Your task to perform on an android device: snooze an email in the gmail app Image 0: 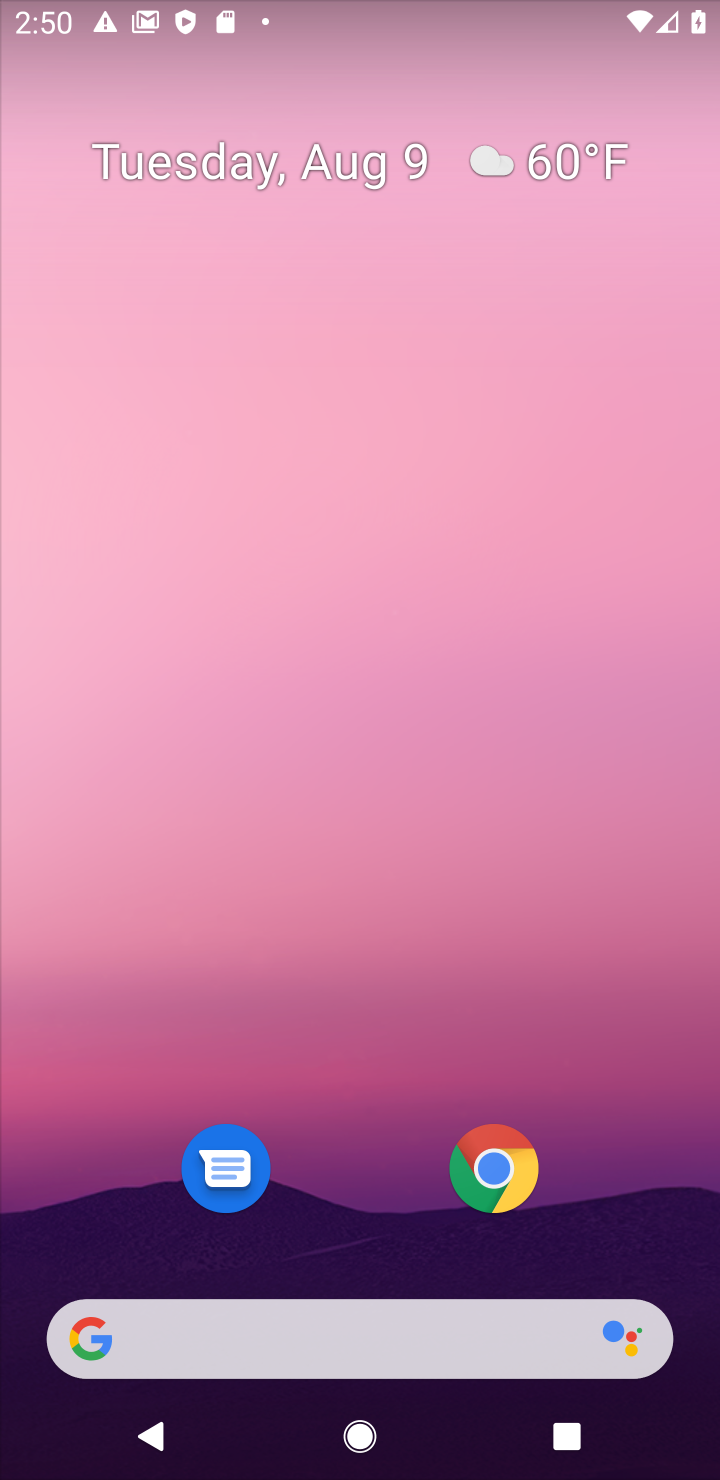
Step 0: drag from (355, 853) to (339, 273)
Your task to perform on an android device: snooze an email in the gmail app Image 1: 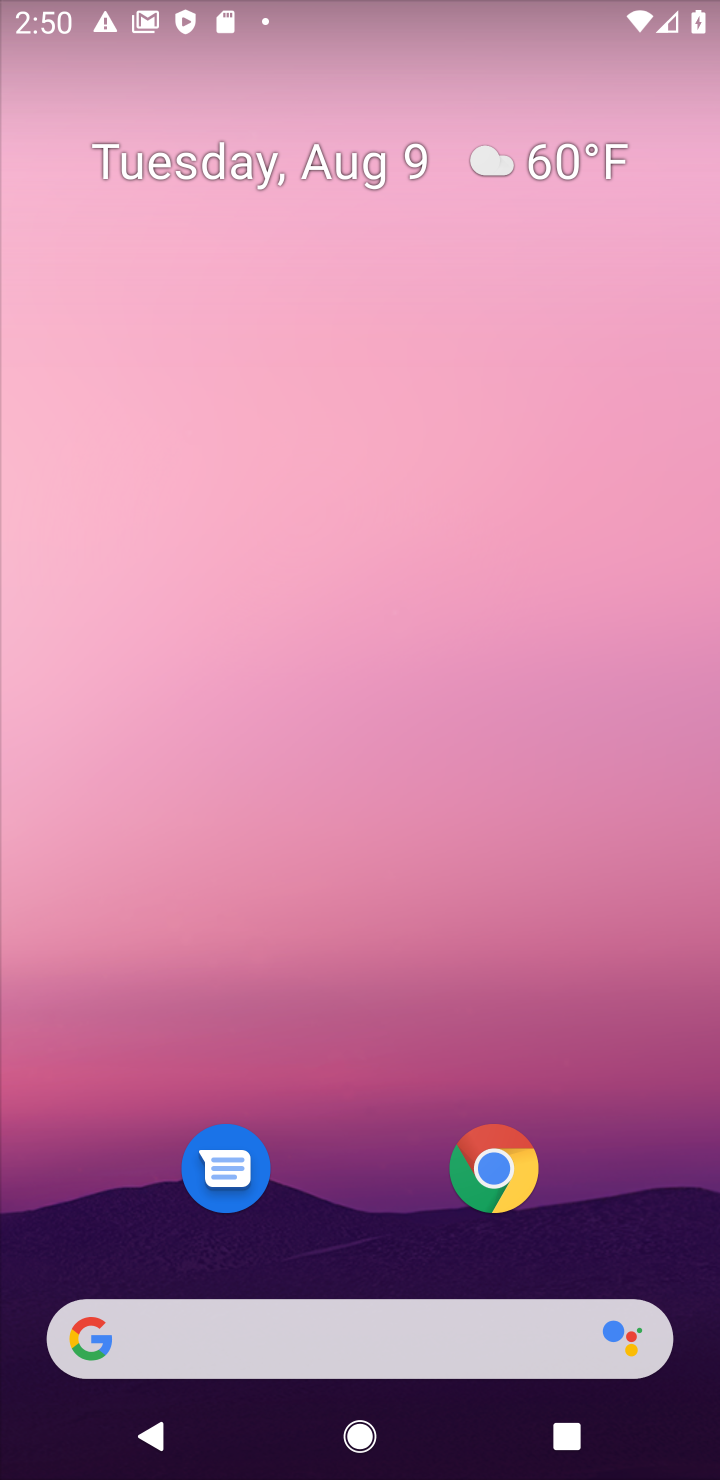
Step 1: drag from (343, 1152) to (272, 19)
Your task to perform on an android device: snooze an email in the gmail app Image 2: 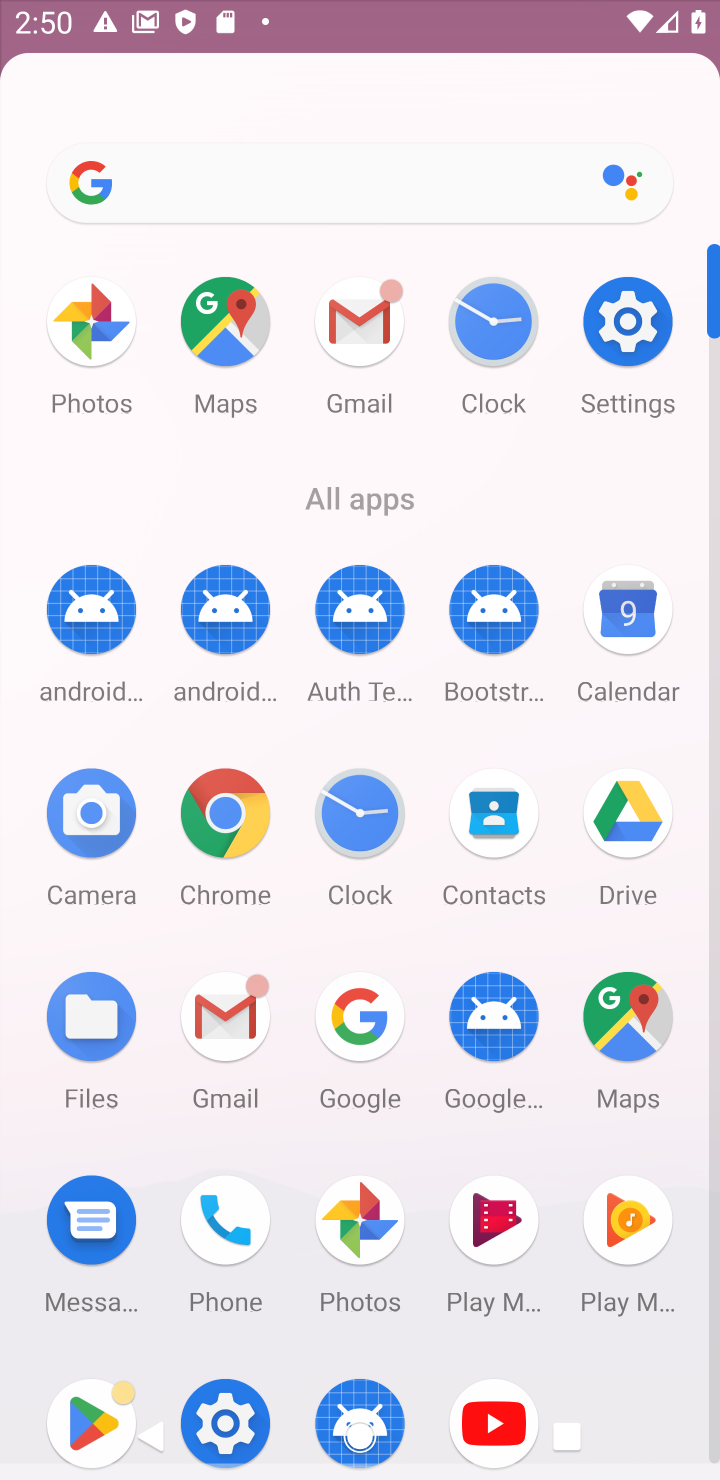
Step 2: click (369, 327)
Your task to perform on an android device: snooze an email in the gmail app Image 3: 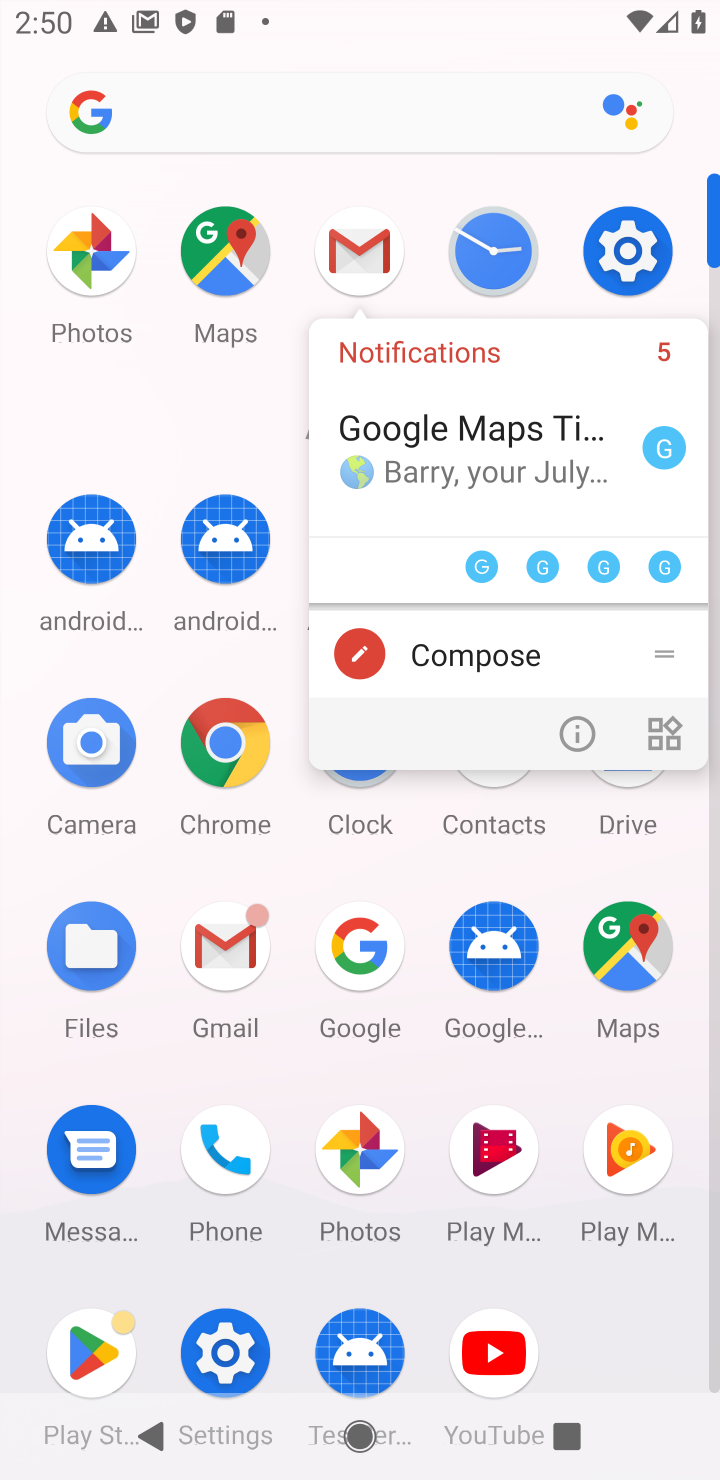
Step 3: click (369, 271)
Your task to perform on an android device: snooze an email in the gmail app Image 4: 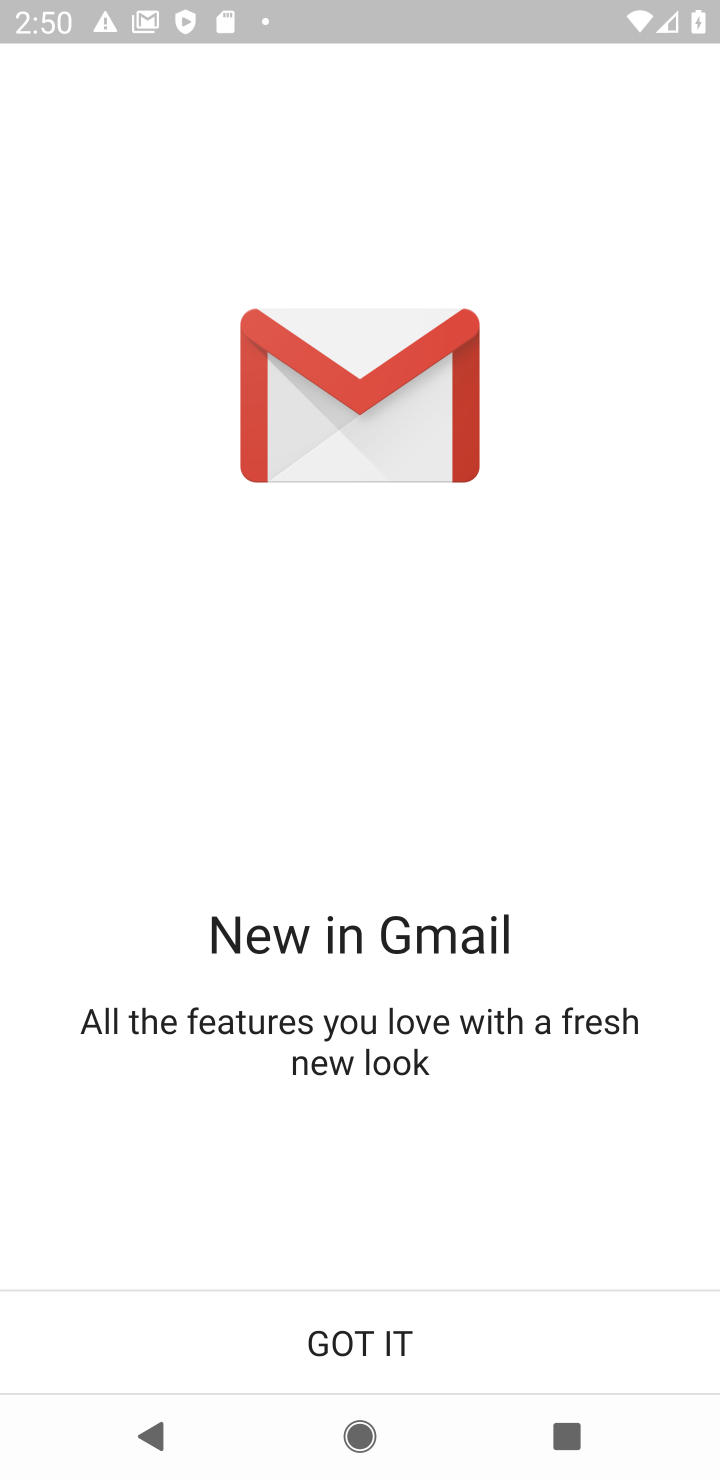
Step 4: click (295, 1323)
Your task to perform on an android device: snooze an email in the gmail app Image 5: 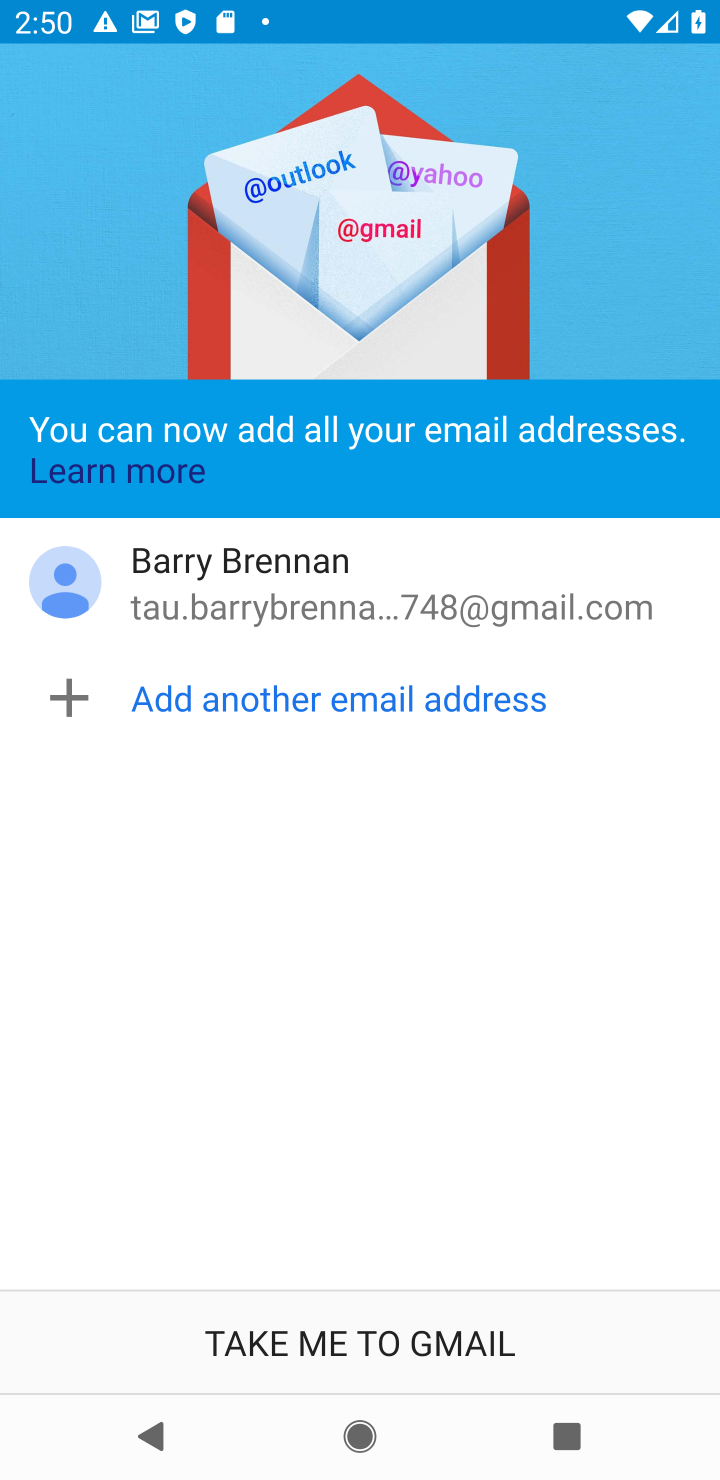
Step 5: click (402, 1330)
Your task to perform on an android device: snooze an email in the gmail app Image 6: 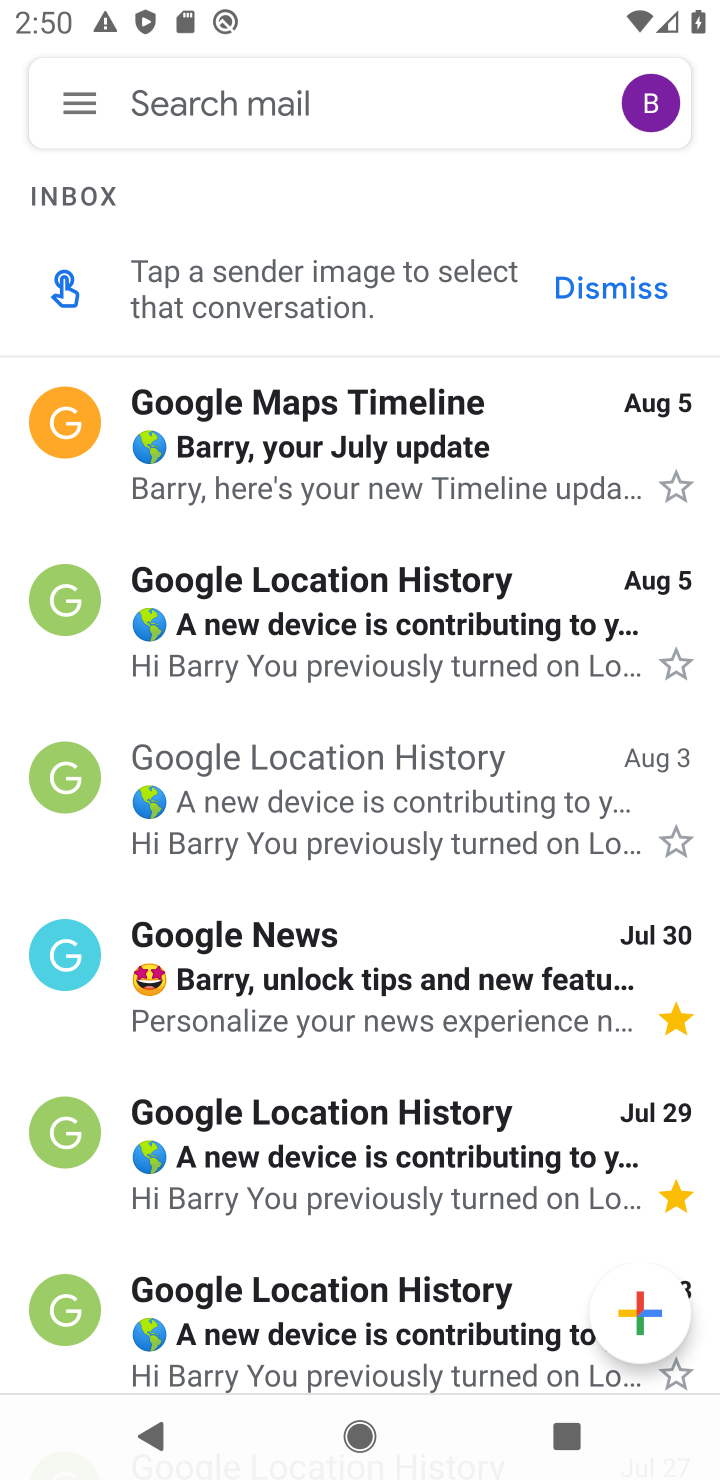
Step 6: drag from (321, 449) to (282, 348)
Your task to perform on an android device: snooze an email in the gmail app Image 7: 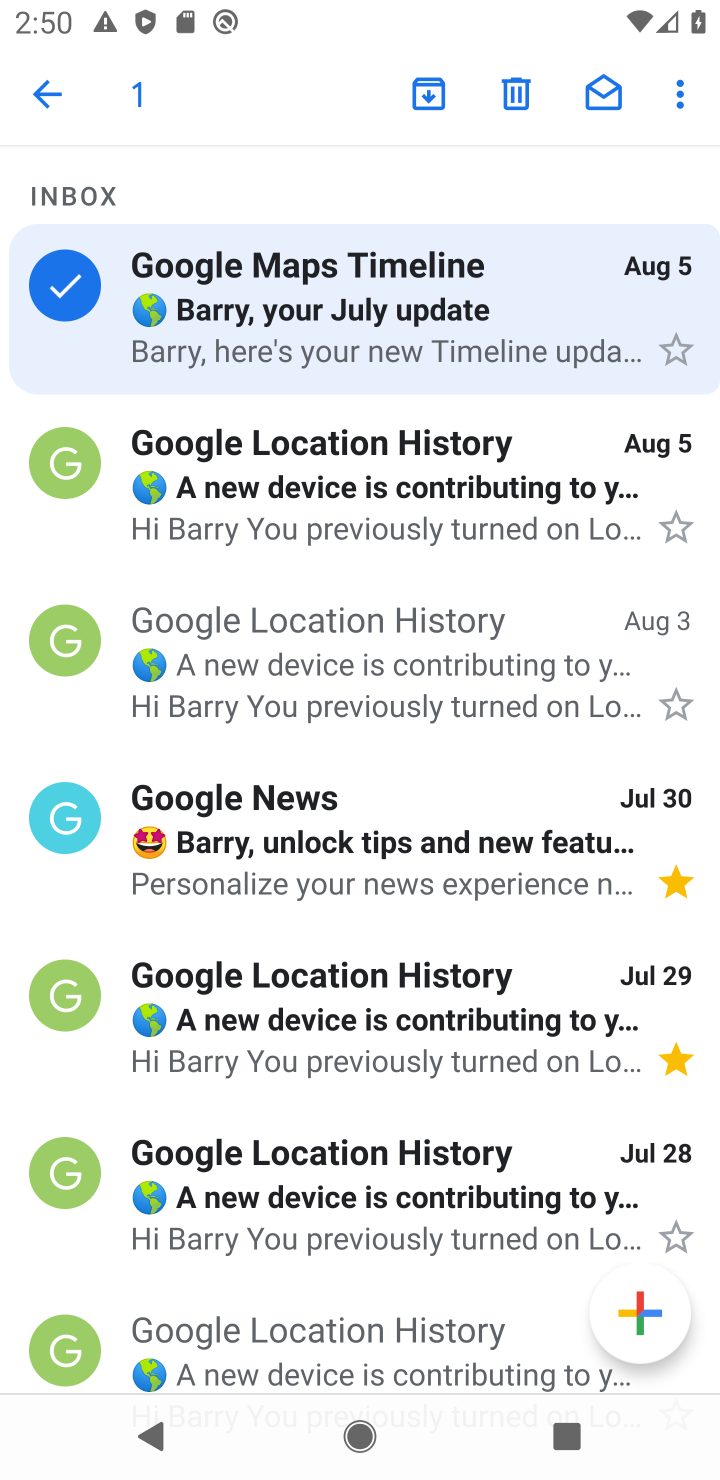
Step 7: click (664, 80)
Your task to perform on an android device: snooze an email in the gmail app Image 8: 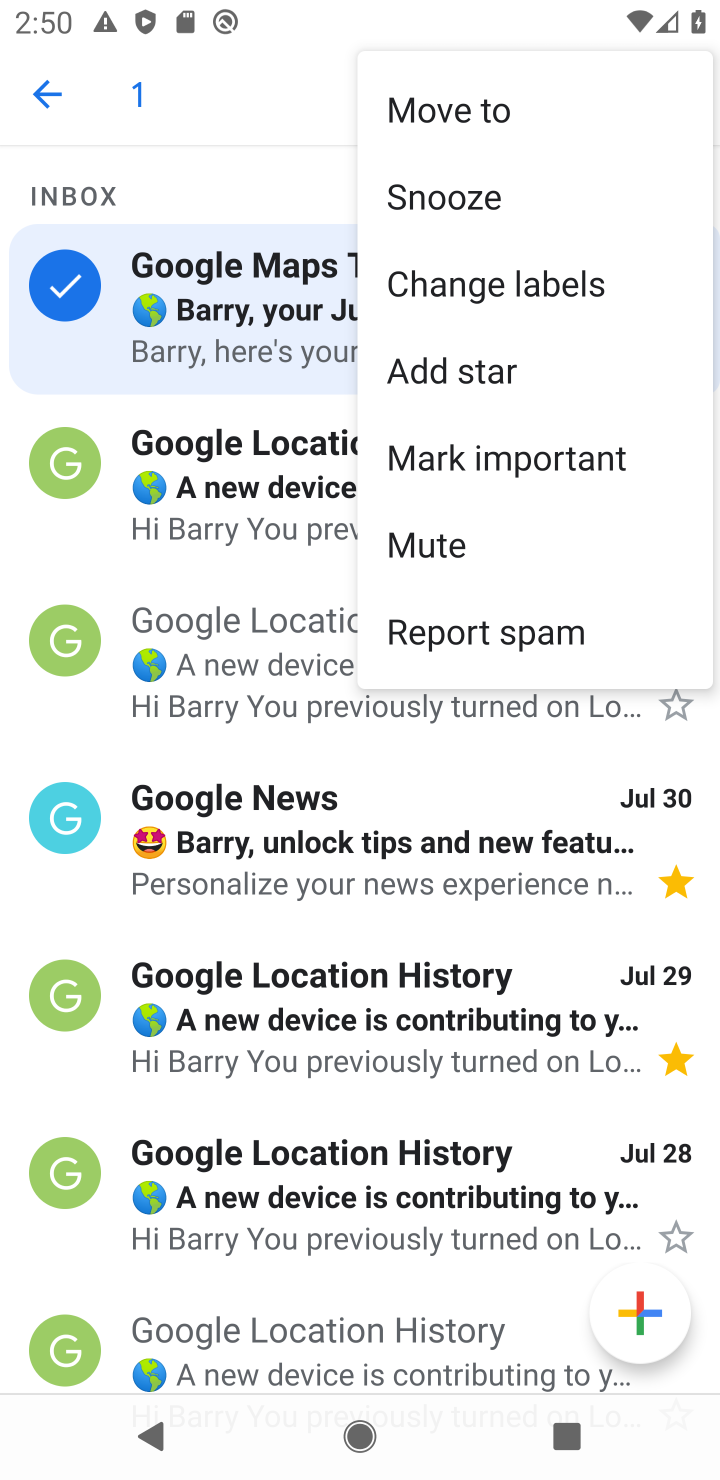
Step 8: click (475, 191)
Your task to perform on an android device: snooze an email in the gmail app Image 9: 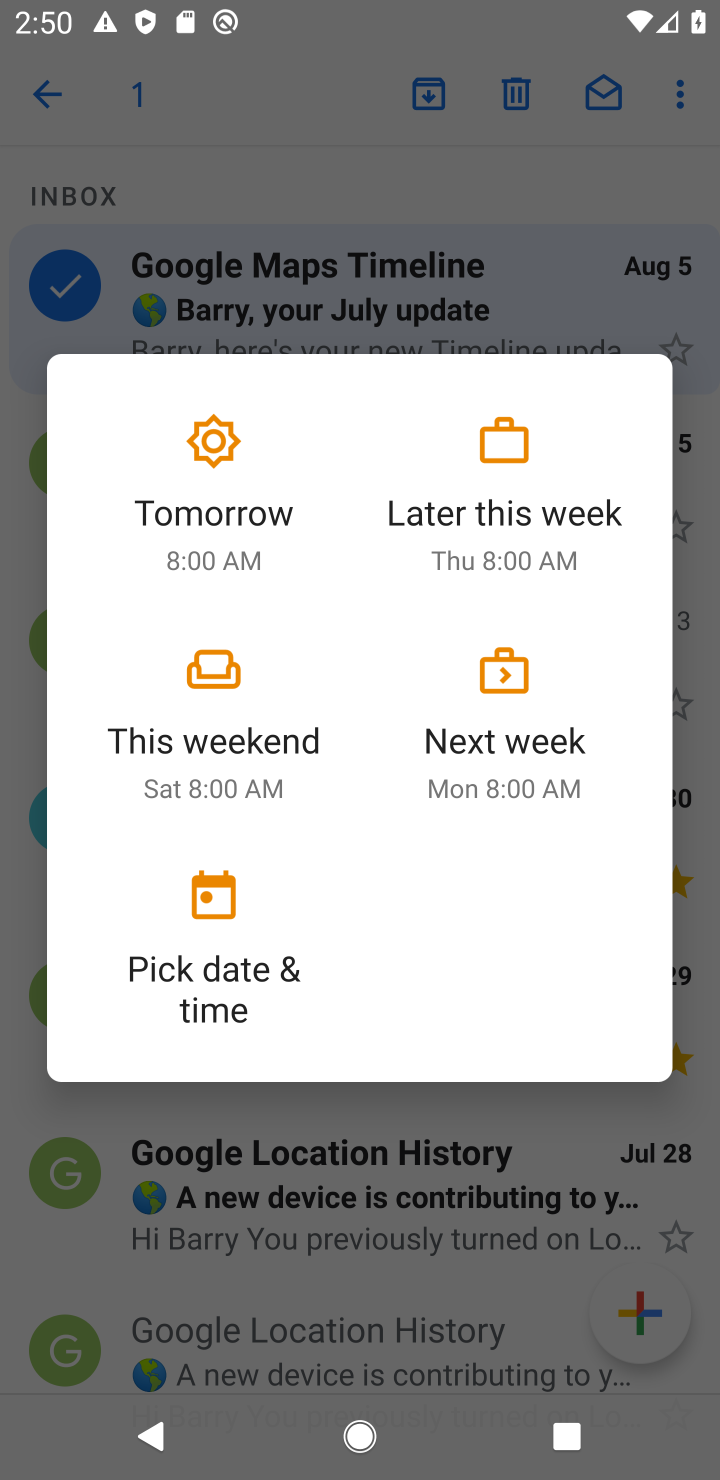
Step 9: click (227, 499)
Your task to perform on an android device: snooze an email in the gmail app Image 10: 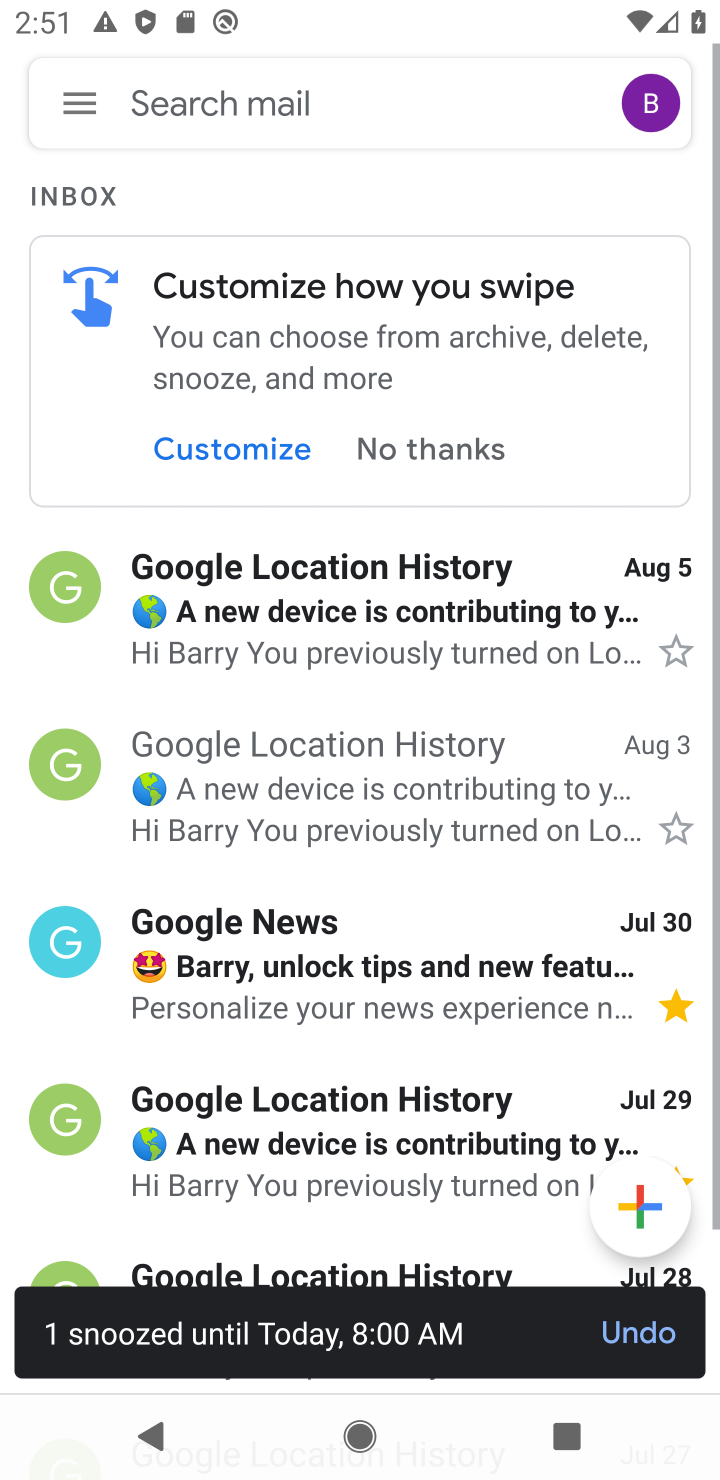
Step 10: task complete